Your task to perform on an android device: visit the assistant section in the google photos Image 0: 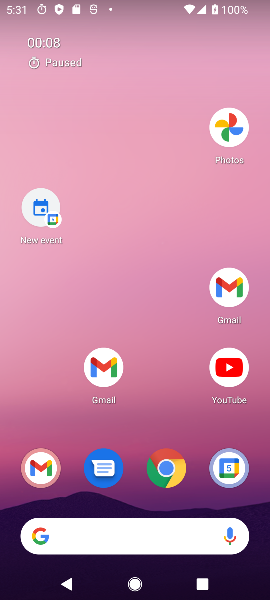
Step 0: drag from (165, 542) to (124, 290)
Your task to perform on an android device: visit the assistant section in the google photos Image 1: 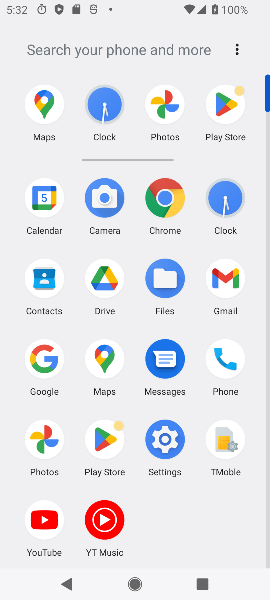
Step 1: click (158, 100)
Your task to perform on an android device: visit the assistant section in the google photos Image 2: 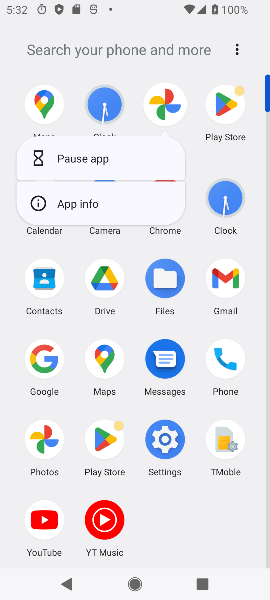
Step 2: click (158, 100)
Your task to perform on an android device: visit the assistant section in the google photos Image 3: 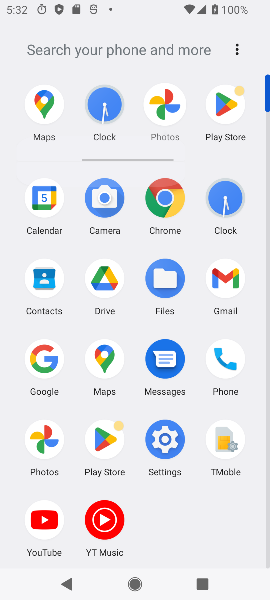
Step 3: click (156, 98)
Your task to perform on an android device: visit the assistant section in the google photos Image 4: 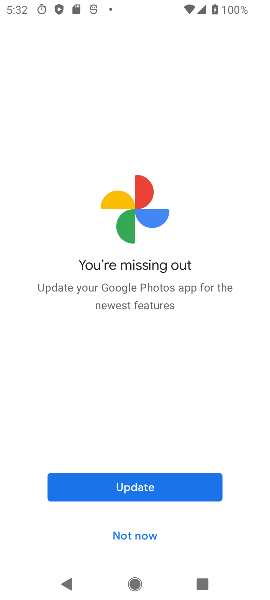
Step 4: click (156, 98)
Your task to perform on an android device: visit the assistant section in the google photos Image 5: 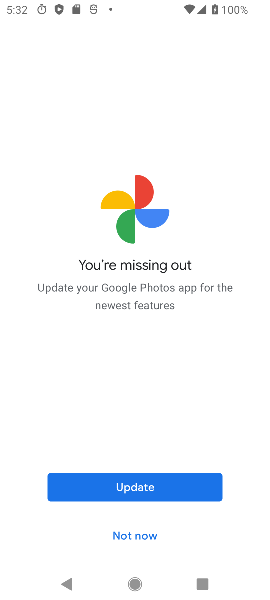
Step 5: click (141, 536)
Your task to perform on an android device: visit the assistant section in the google photos Image 6: 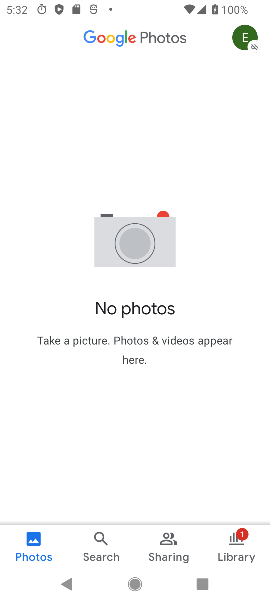
Step 6: click (166, 550)
Your task to perform on an android device: visit the assistant section in the google photos Image 7: 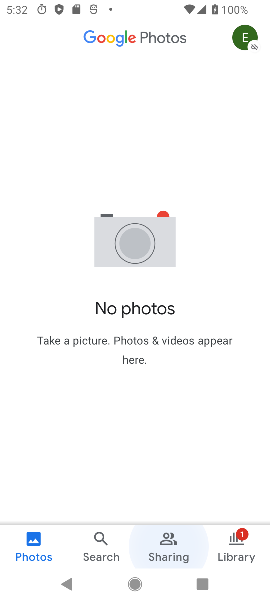
Step 7: click (166, 550)
Your task to perform on an android device: visit the assistant section in the google photos Image 8: 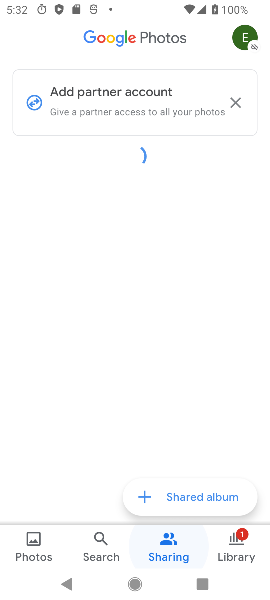
Step 8: click (166, 550)
Your task to perform on an android device: visit the assistant section in the google photos Image 9: 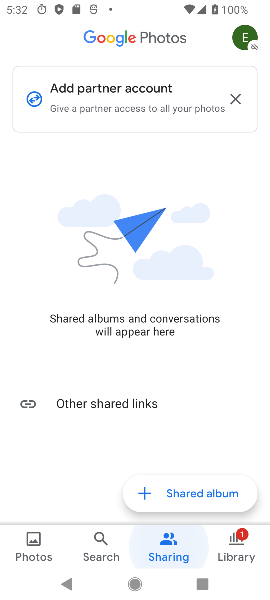
Step 9: click (166, 550)
Your task to perform on an android device: visit the assistant section in the google photos Image 10: 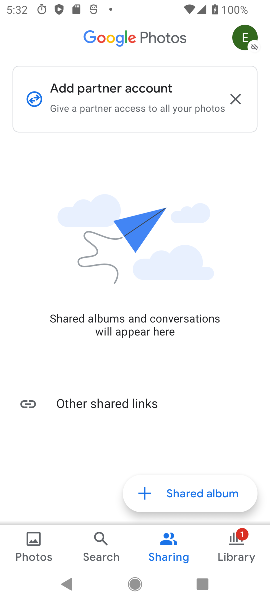
Step 10: task complete